Your task to perform on an android device: Find coffee shops on Maps Image 0: 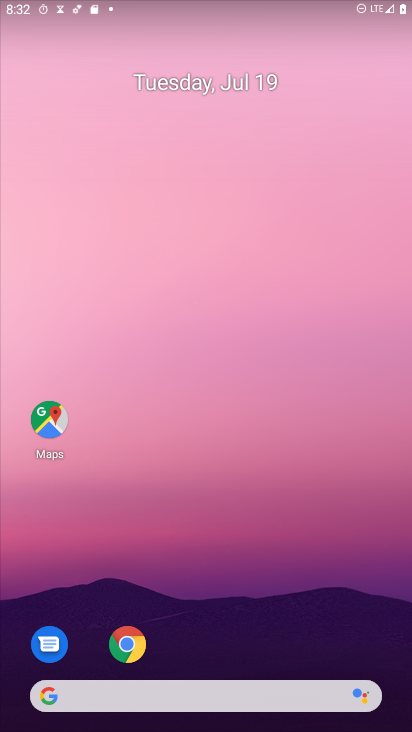
Step 0: click (46, 416)
Your task to perform on an android device: Find coffee shops on Maps Image 1: 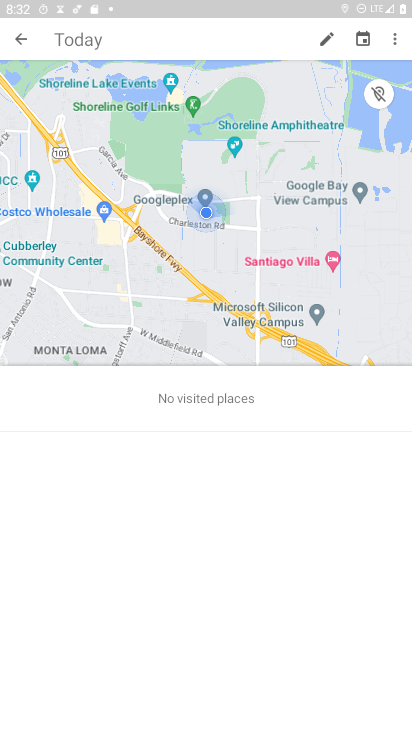
Step 1: click (94, 31)
Your task to perform on an android device: Find coffee shops on Maps Image 2: 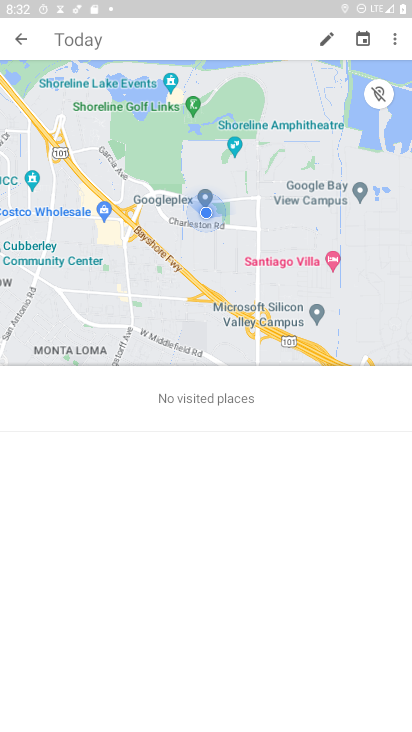
Step 2: click (67, 65)
Your task to perform on an android device: Find coffee shops on Maps Image 3: 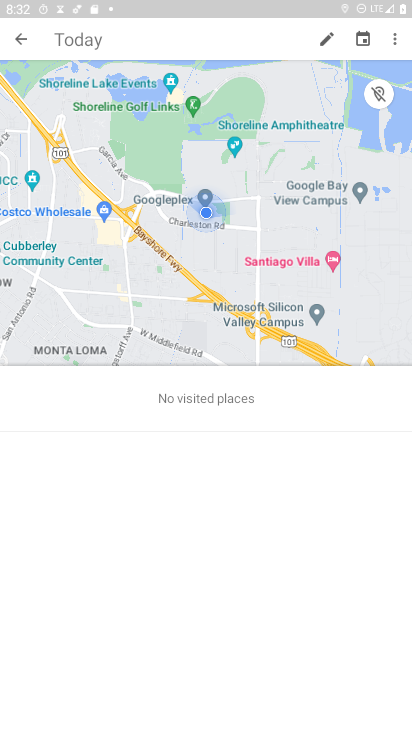
Step 3: click (65, 48)
Your task to perform on an android device: Find coffee shops on Maps Image 4: 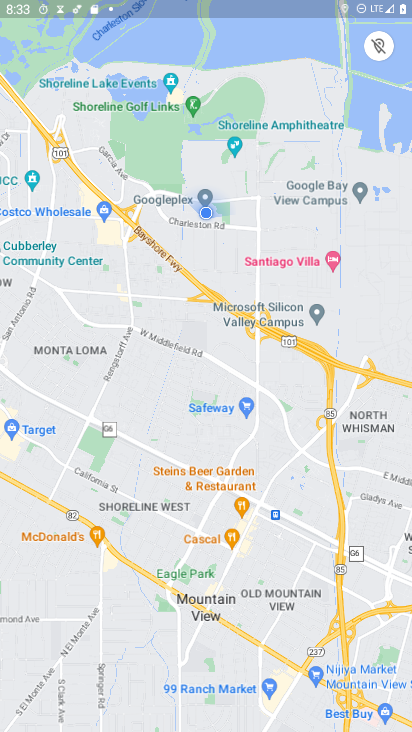
Step 4: task complete